Your task to perform on an android device: Go to Yahoo.com Image 0: 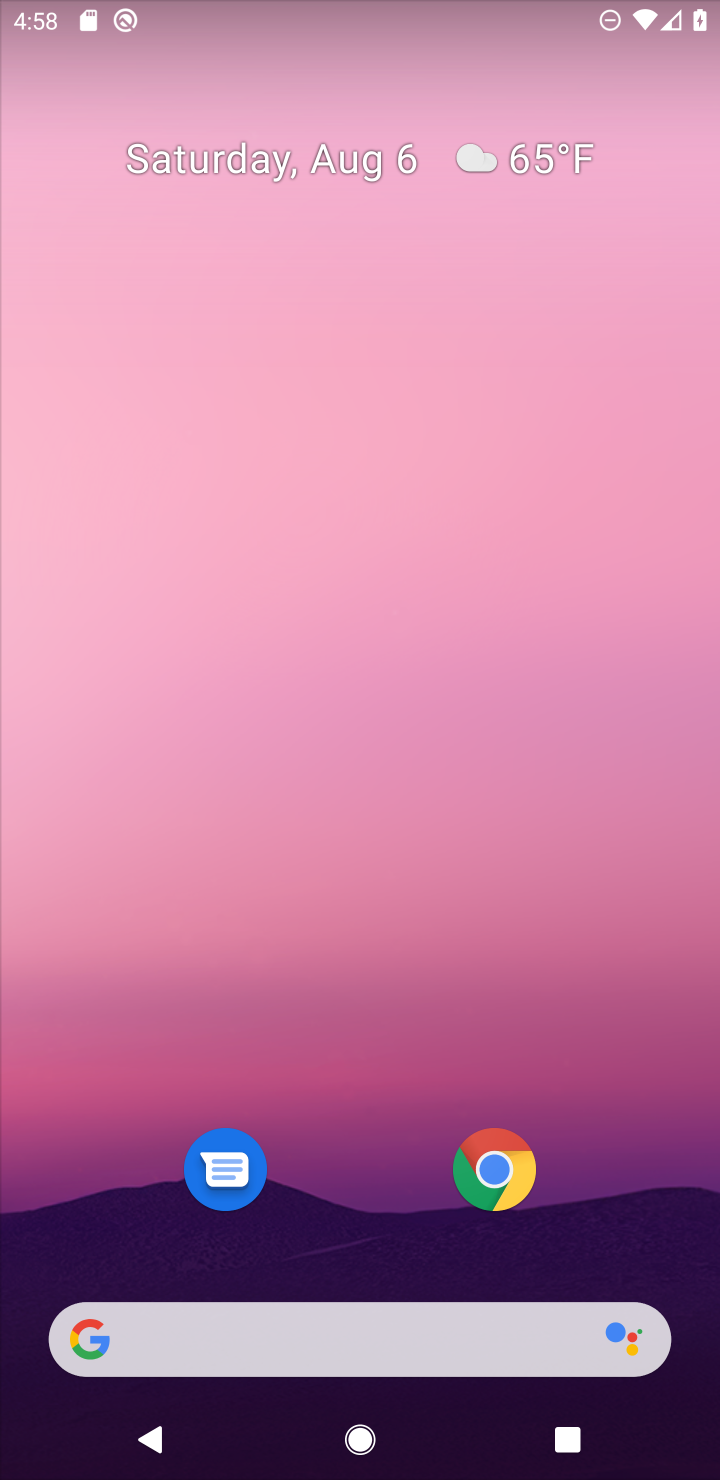
Step 0: press home button
Your task to perform on an android device: Go to Yahoo.com Image 1: 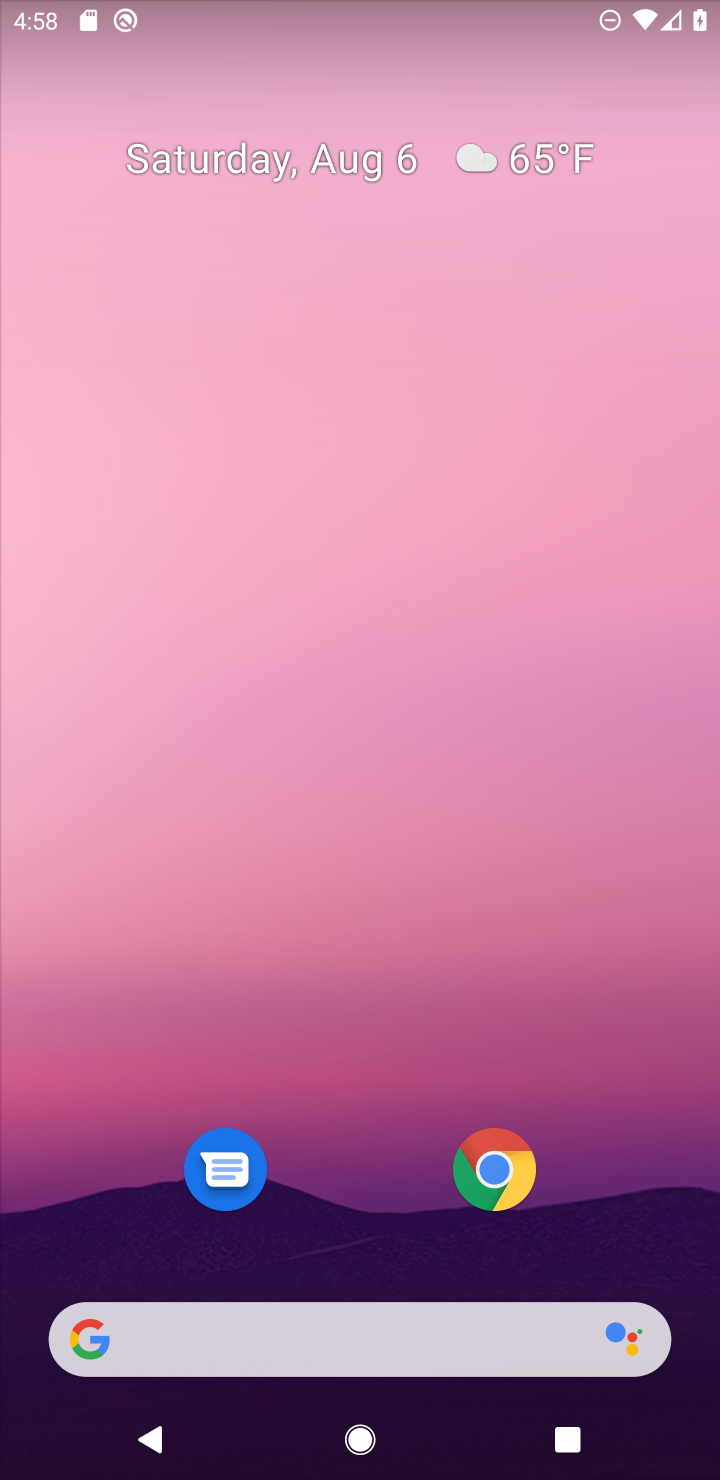
Step 1: click (469, 1167)
Your task to perform on an android device: Go to Yahoo.com Image 2: 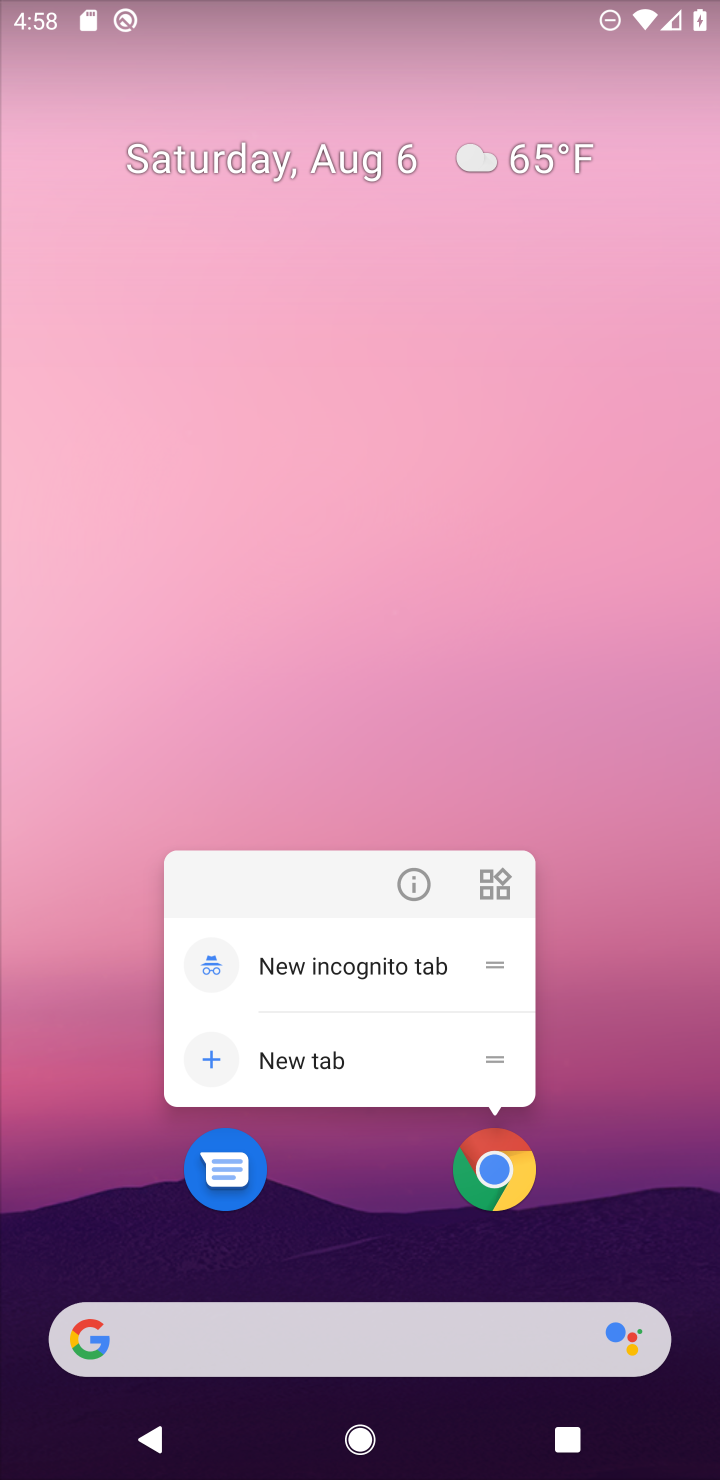
Step 2: click (469, 1167)
Your task to perform on an android device: Go to Yahoo.com Image 3: 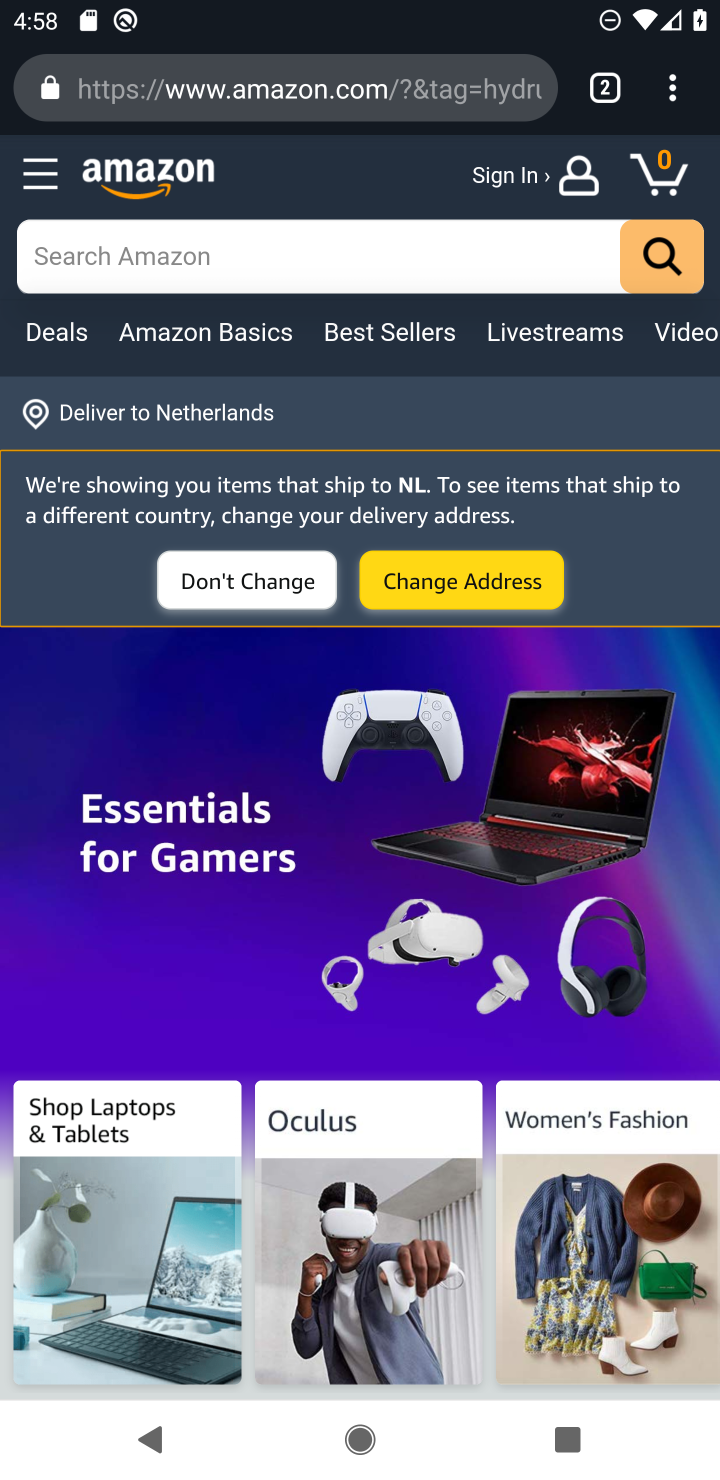
Step 3: click (344, 81)
Your task to perform on an android device: Go to Yahoo.com Image 4: 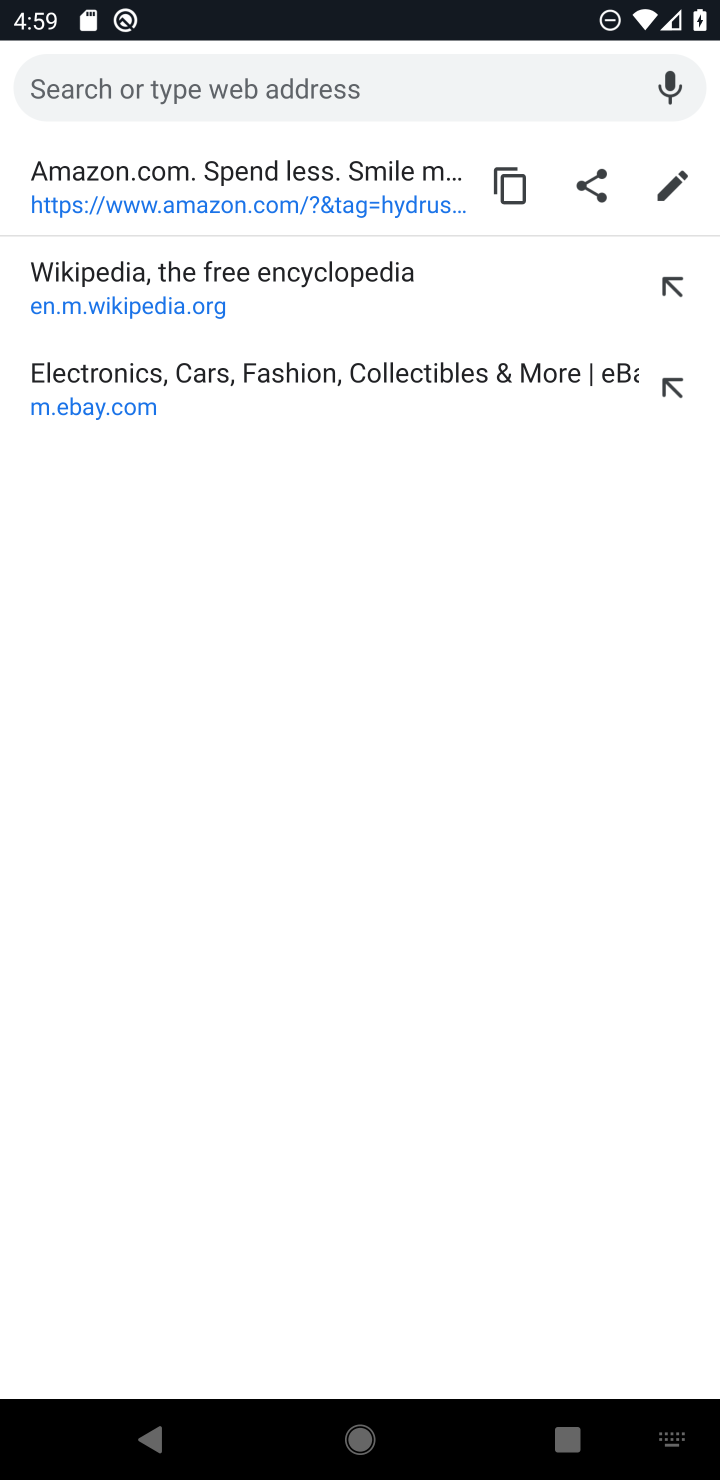
Step 4: type "yahoo.com"
Your task to perform on an android device: Go to Yahoo.com Image 5: 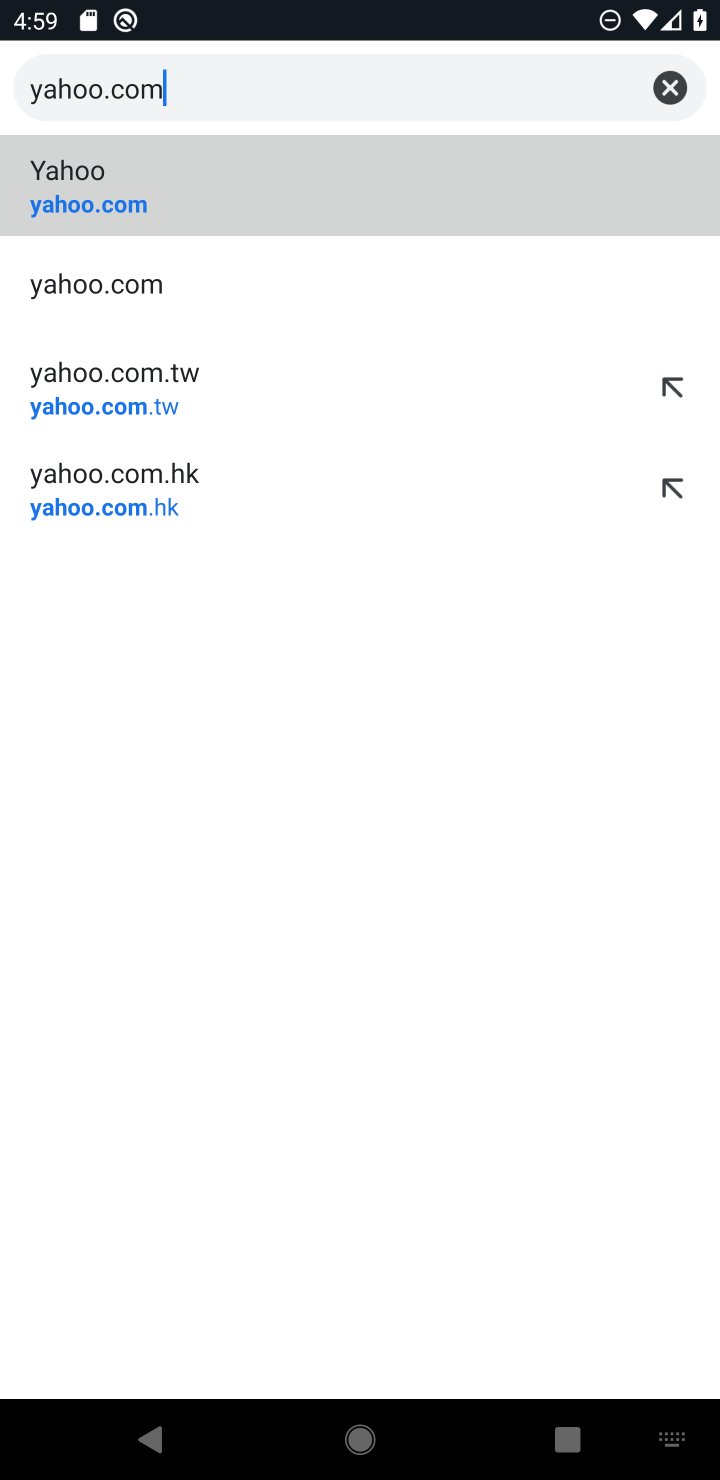
Step 5: click (121, 160)
Your task to perform on an android device: Go to Yahoo.com Image 6: 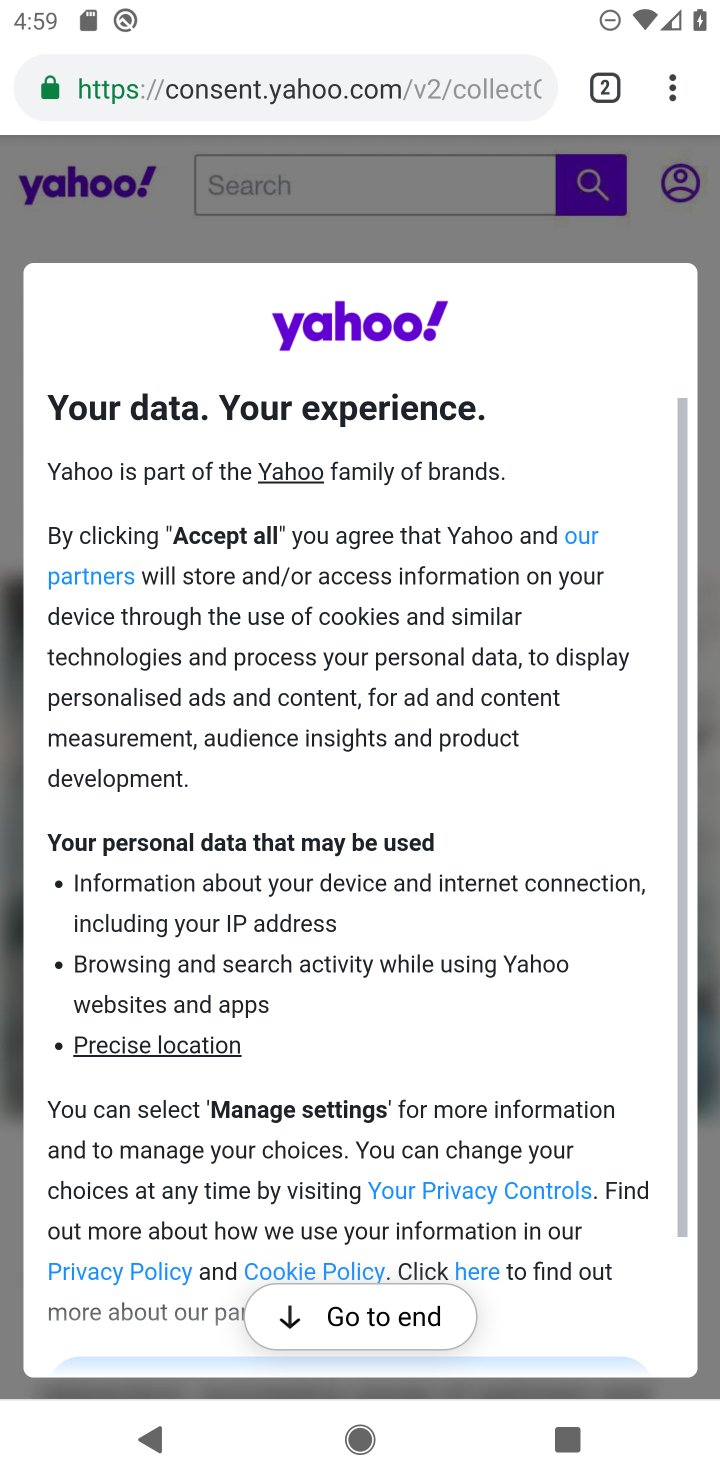
Step 6: task complete